Your task to perform on an android device: toggle improve location accuracy Image 0: 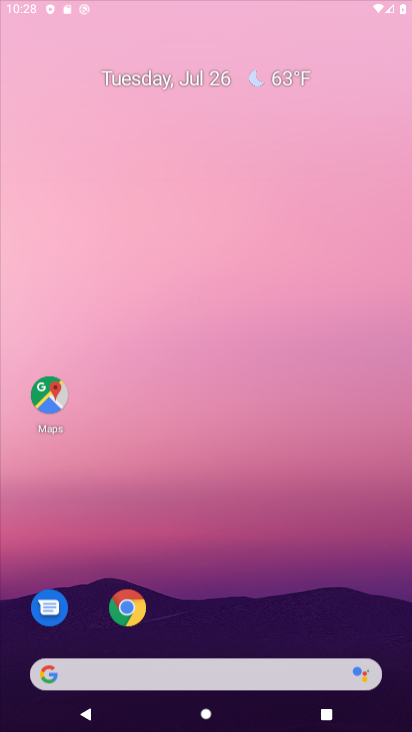
Step 0: press home button
Your task to perform on an android device: toggle improve location accuracy Image 1: 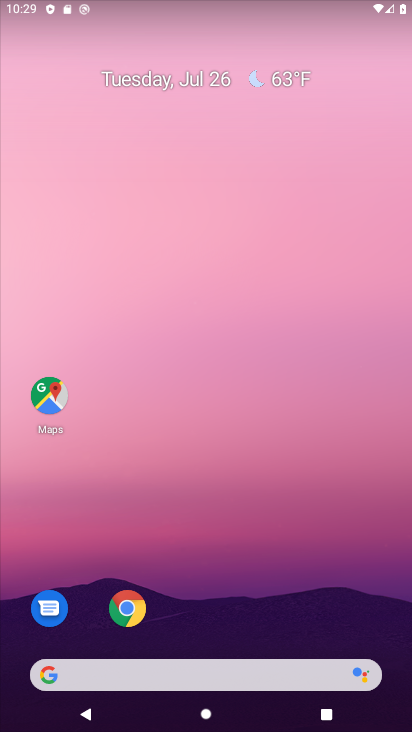
Step 1: drag from (220, 630) to (223, 190)
Your task to perform on an android device: toggle improve location accuracy Image 2: 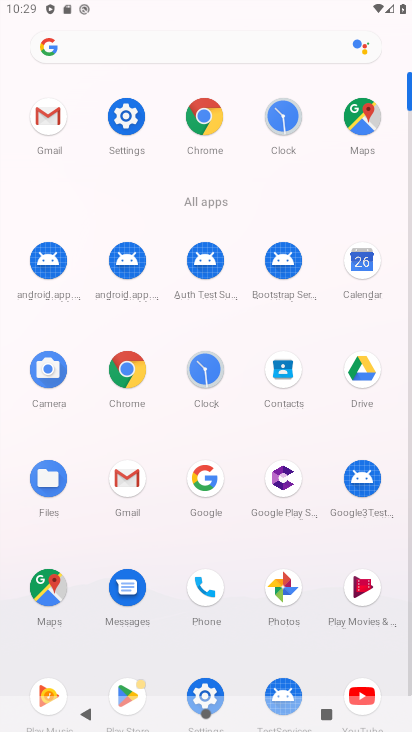
Step 2: click (129, 118)
Your task to perform on an android device: toggle improve location accuracy Image 3: 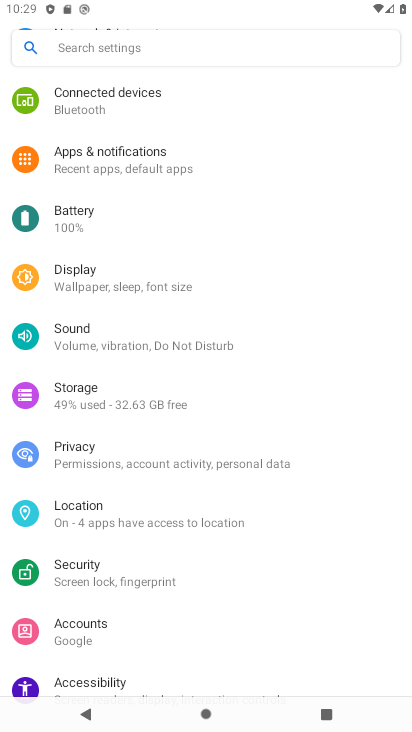
Step 3: click (73, 517)
Your task to perform on an android device: toggle improve location accuracy Image 4: 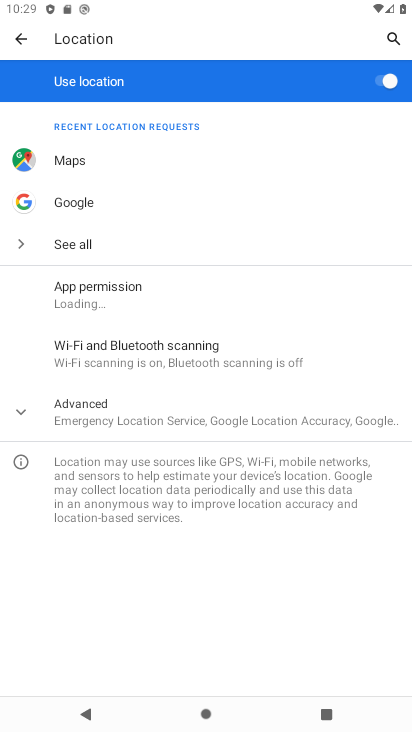
Step 4: click (80, 409)
Your task to perform on an android device: toggle improve location accuracy Image 5: 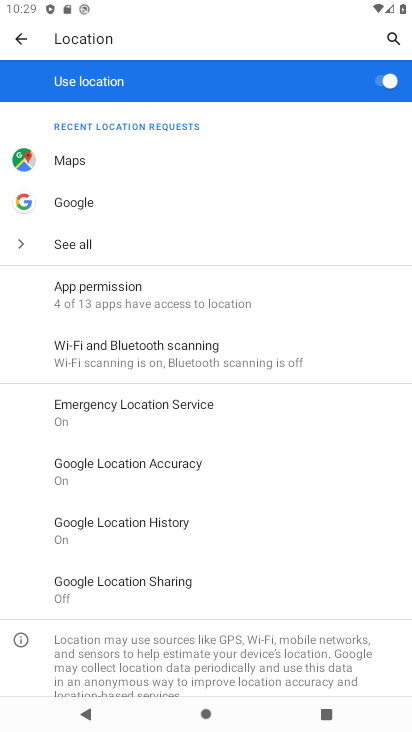
Step 5: click (142, 465)
Your task to perform on an android device: toggle improve location accuracy Image 6: 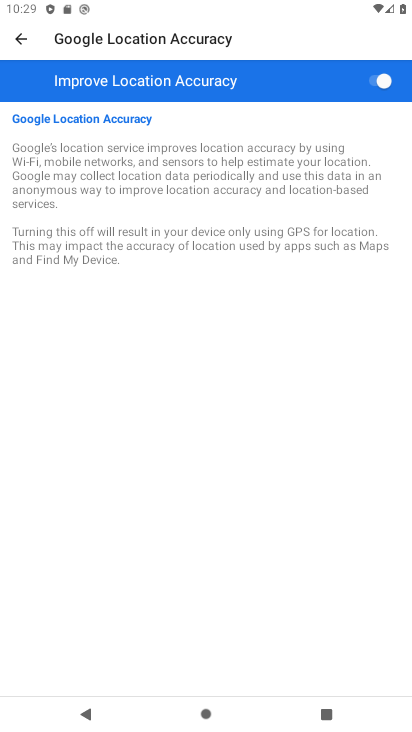
Step 6: click (385, 82)
Your task to perform on an android device: toggle improve location accuracy Image 7: 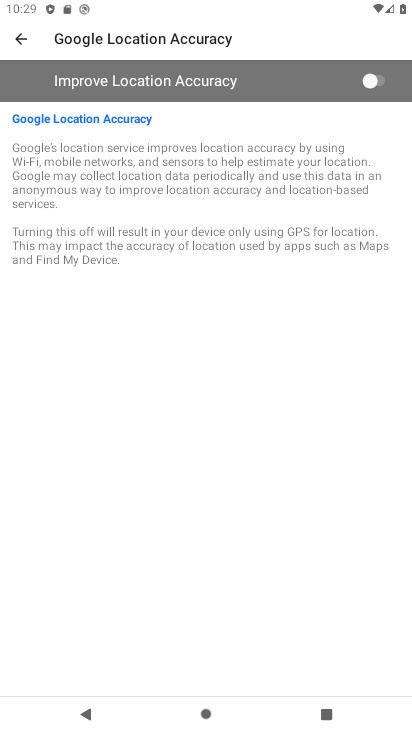
Step 7: task complete